Your task to perform on an android device: Go to Google maps Image 0: 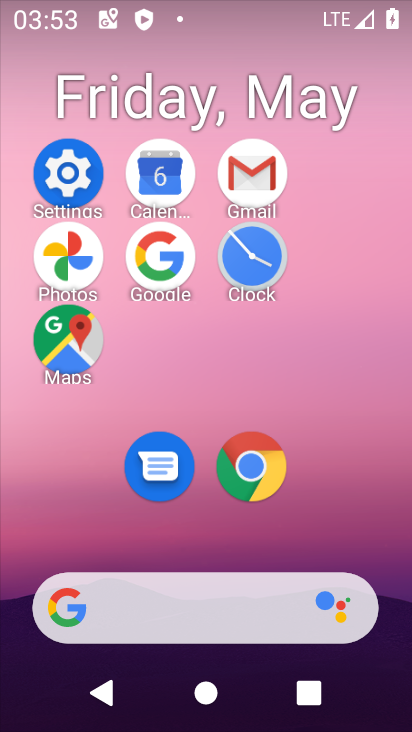
Step 0: click (74, 348)
Your task to perform on an android device: Go to Google maps Image 1: 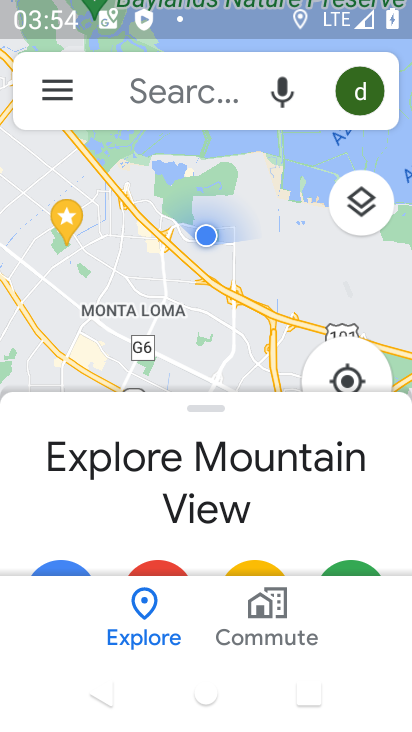
Step 1: task complete